Your task to perform on an android device: allow cookies in the chrome app Image 0: 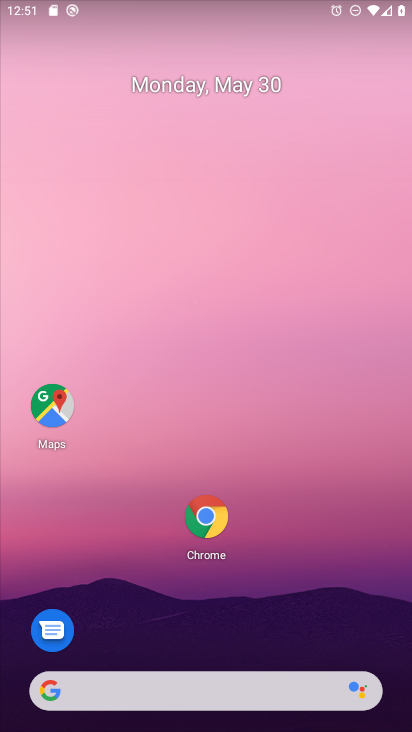
Step 0: press home button
Your task to perform on an android device: allow cookies in the chrome app Image 1: 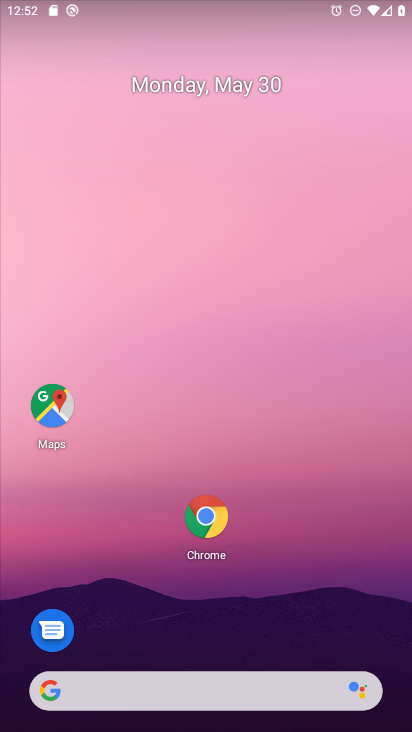
Step 1: drag from (141, 693) to (339, 1)
Your task to perform on an android device: allow cookies in the chrome app Image 2: 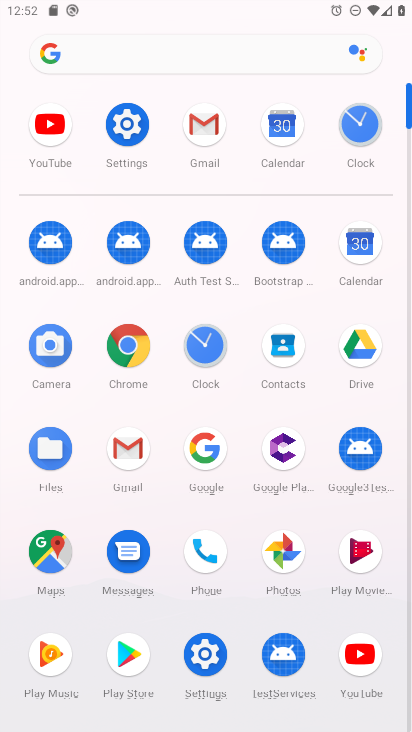
Step 2: click (130, 355)
Your task to perform on an android device: allow cookies in the chrome app Image 3: 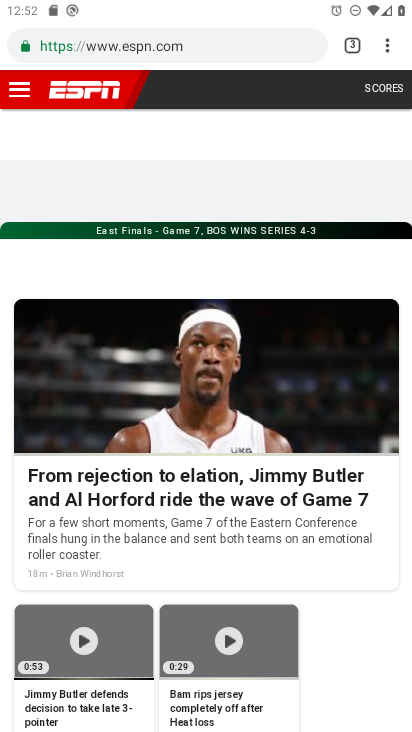
Step 3: drag from (390, 38) to (255, 546)
Your task to perform on an android device: allow cookies in the chrome app Image 4: 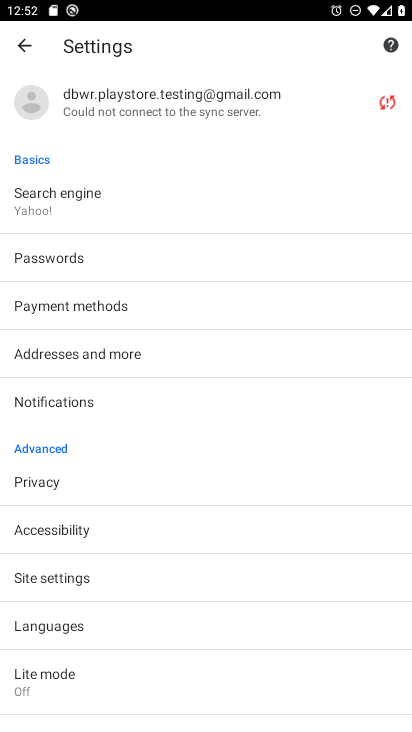
Step 4: click (58, 579)
Your task to perform on an android device: allow cookies in the chrome app Image 5: 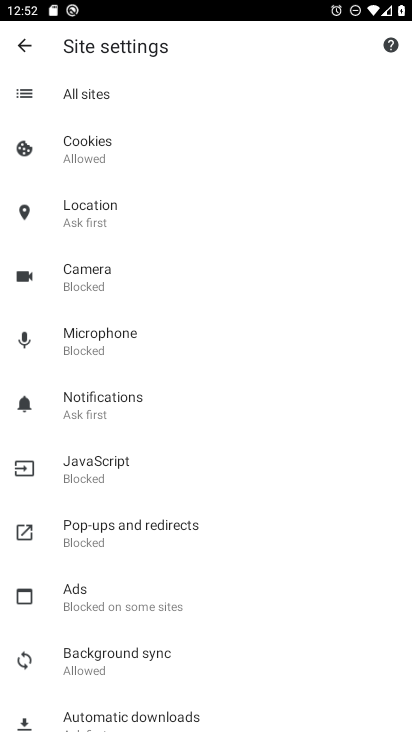
Step 5: click (103, 145)
Your task to perform on an android device: allow cookies in the chrome app Image 6: 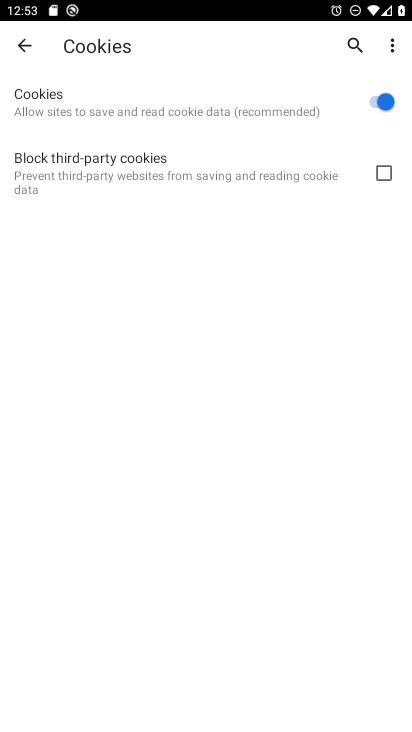
Step 6: task complete